Your task to perform on an android device: turn off wifi Image 0: 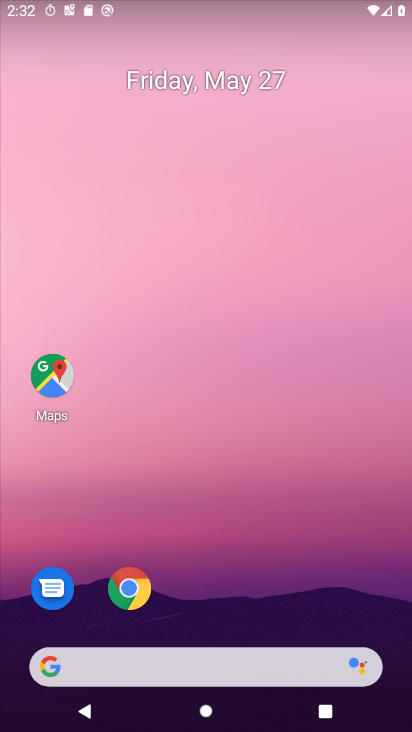
Step 0: drag from (240, 611) to (219, 159)
Your task to perform on an android device: turn off wifi Image 1: 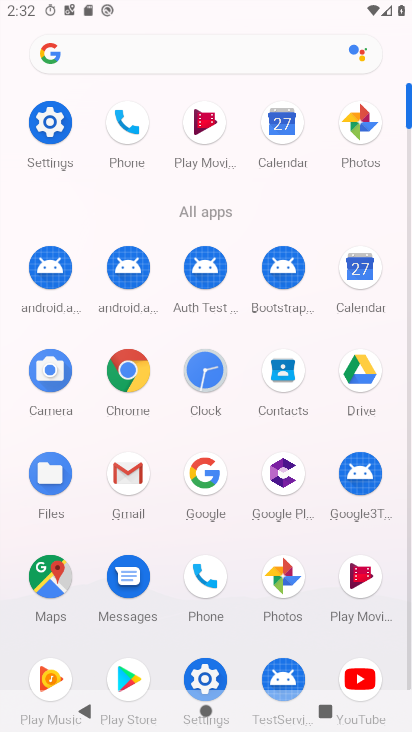
Step 1: click (44, 126)
Your task to perform on an android device: turn off wifi Image 2: 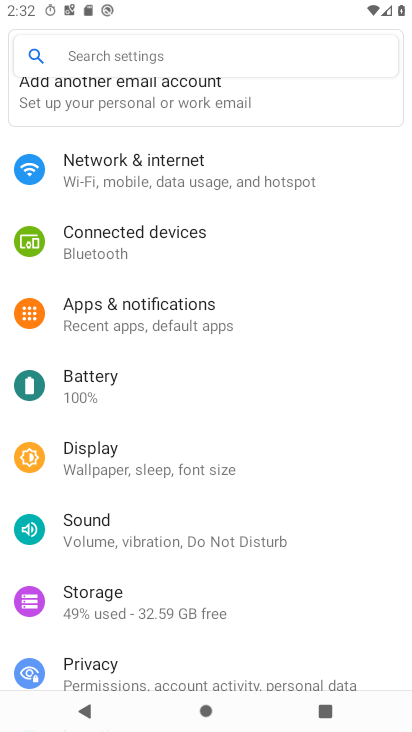
Step 2: click (177, 168)
Your task to perform on an android device: turn off wifi Image 3: 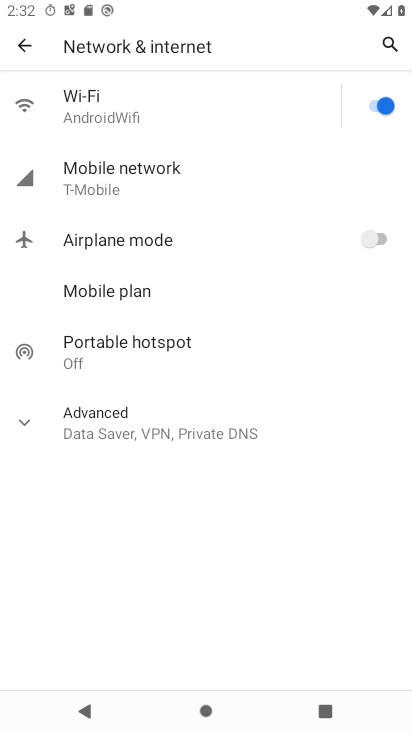
Step 3: click (392, 107)
Your task to perform on an android device: turn off wifi Image 4: 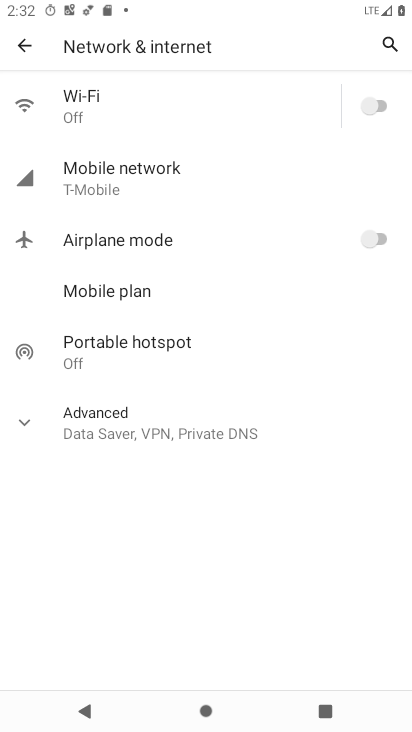
Step 4: task complete